Your task to perform on an android device: What's the weather going to be tomorrow? Image 0: 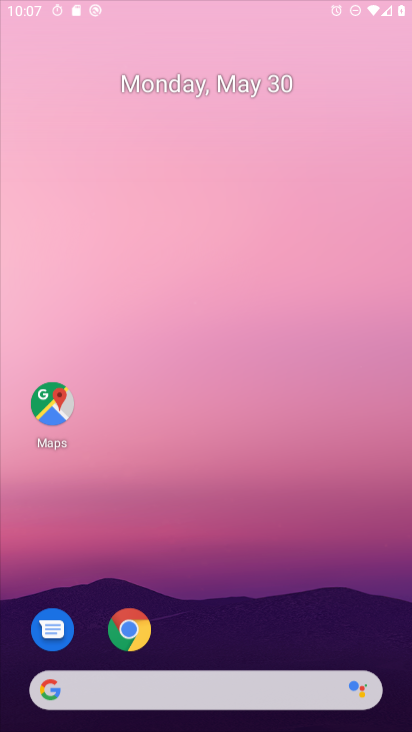
Step 0: drag from (332, 221) to (276, 54)
Your task to perform on an android device: What's the weather going to be tomorrow? Image 1: 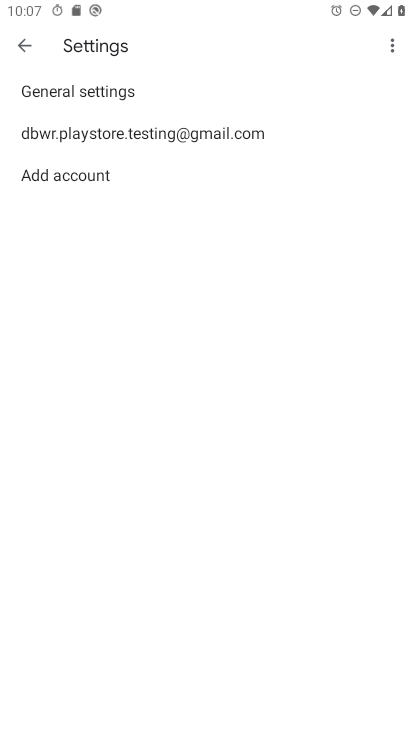
Step 1: press home button
Your task to perform on an android device: What's the weather going to be tomorrow? Image 2: 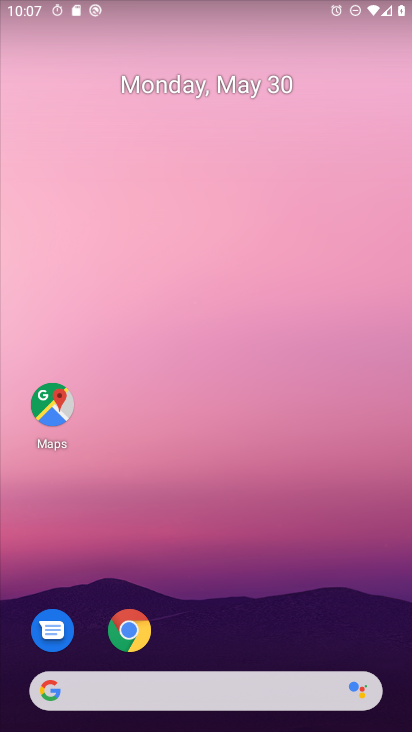
Step 2: drag from (313, 625) to (174, 24)
Your task to perform on an android device: What's the weather going to be tomorrow? Image 3: 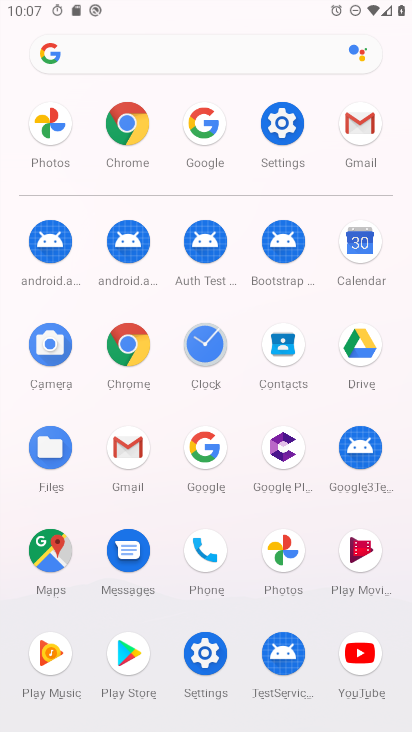
Step 3: click (204, 462)
Your task to perform on an android device: What's the weather going to be tomorrow? Image 4: 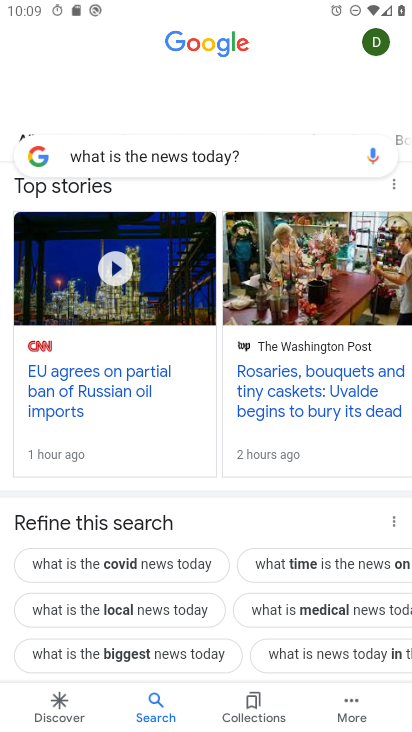
Step 4: press back button
Your task to perform on an android device: What's the weather going to be tomorrow? Image 5: 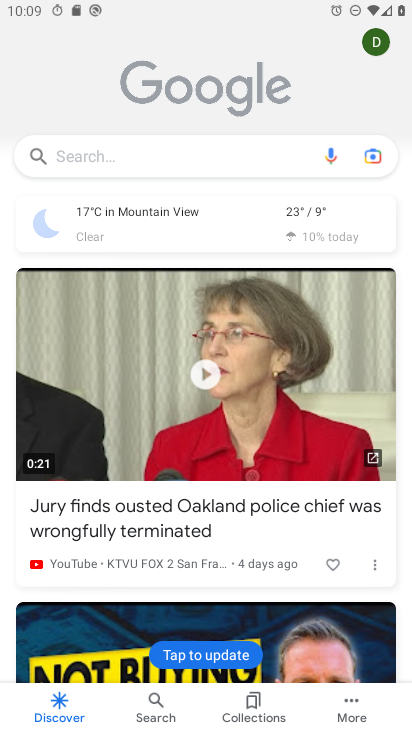
Step 5: click (119, 164)
Your task to perform on an android device: What's the weather going to be tomorrow? Image 6: 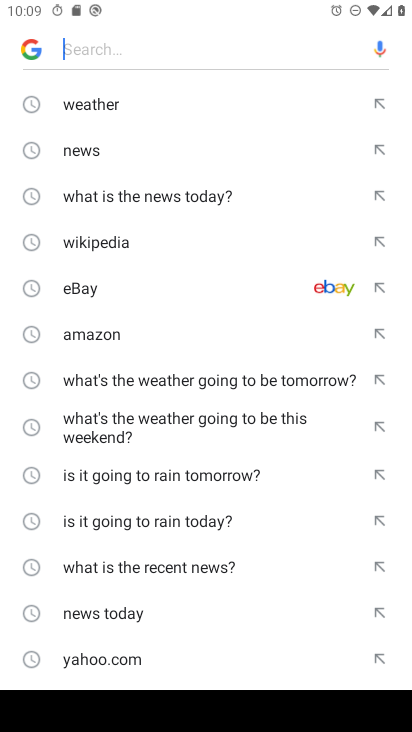
Step 6: click (180, 370)
Your task to perform on an android device: What's the weather going to be tomorrow? Image 7: 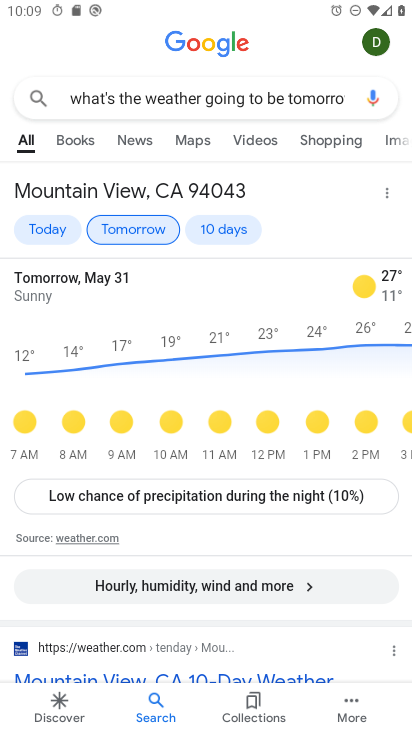
Step 7: task complete